Your task to perform on an android device: Open network settings Image 0: 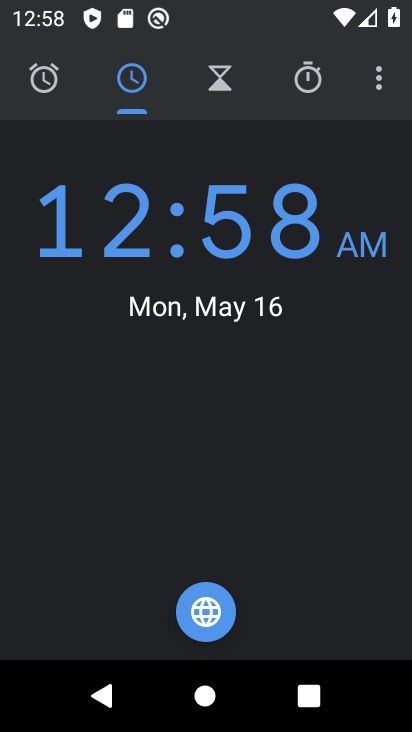
Step 0: press home button
Your task to perform on an android device: Open network settings Image 1: 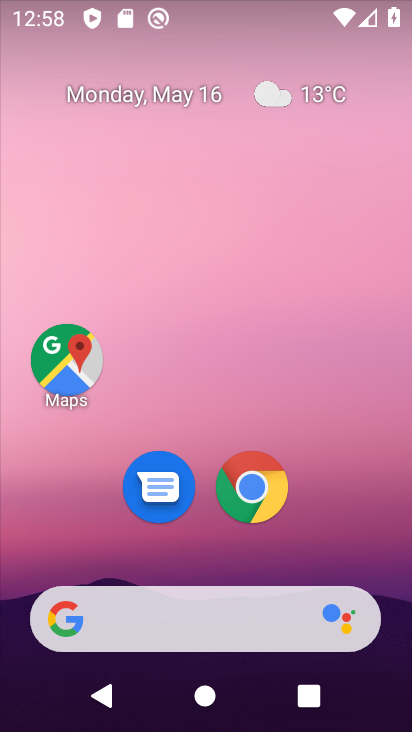
Step 1: drag from (396, 630) to (394, 154)
Your task to perform on an android device: Open network settings Image 2: 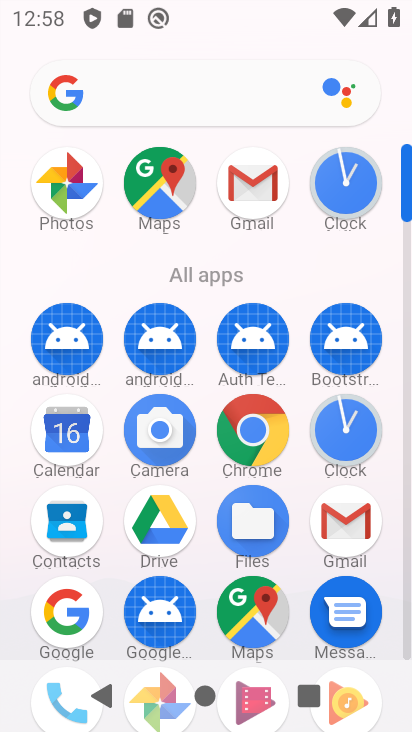
Step 2: drag from (406, 151) to (404, 58)
Your task to perform on an android device: Open network settings Image 3: 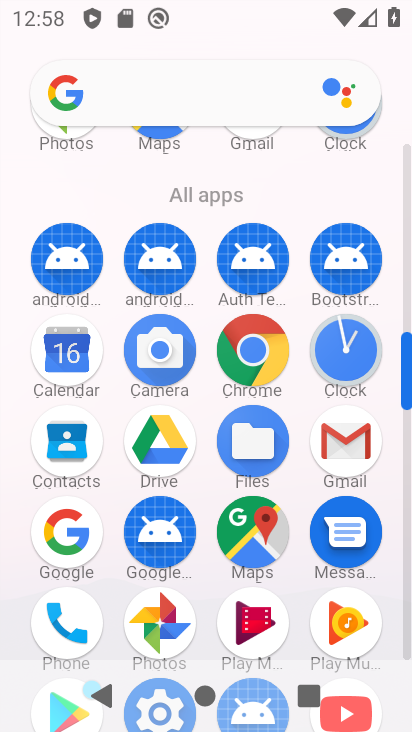
Step 3: drag from (405, 335) to (407, 221)
Your task to perform on an android device: Open network settings Image 4: 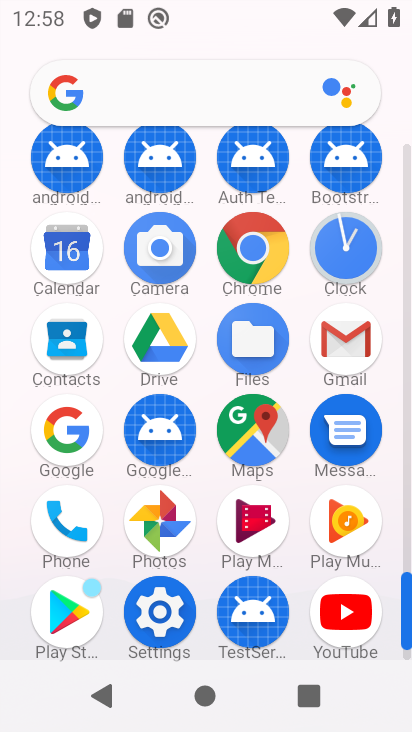
Step 4: click (163, 618)
Your task to perform on an android device: Open network settings Image 5: 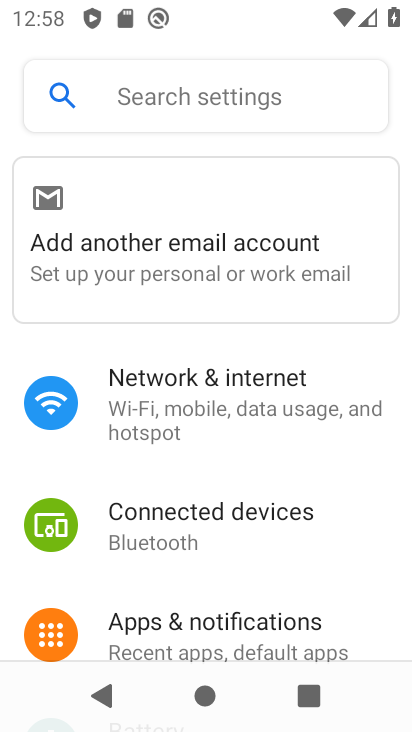
Step 5: click (154, 396)
Your task to perform on an android device: Open network settings Image 6: 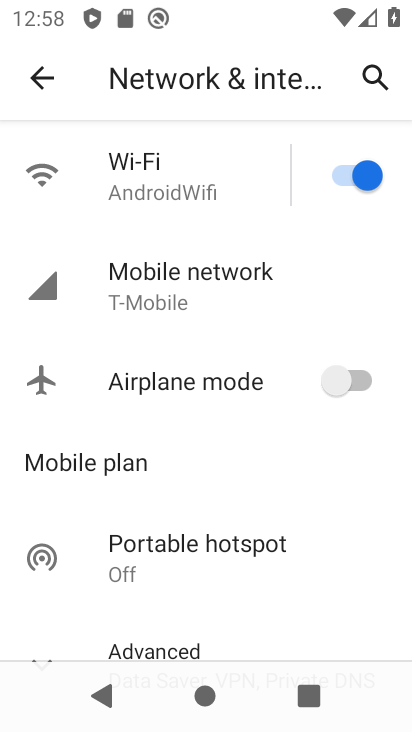
Step 6: click (149, 286)
Your task to perform on an android device: Open network settings Image 7: 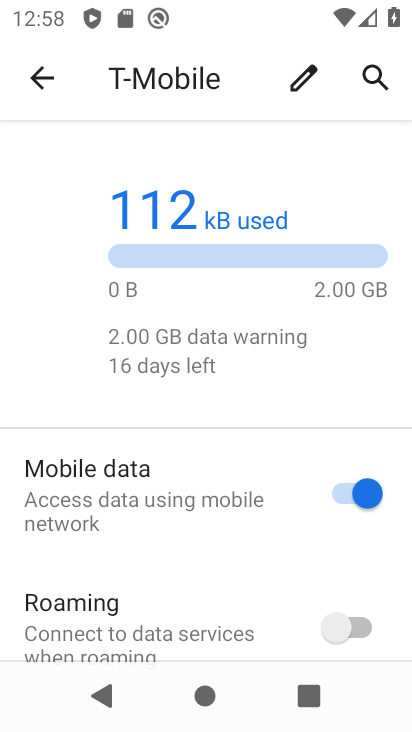
Step 7: drag from (198, 563) to (181, 301)
Your task to perform on an android device: Open network settings Image 8: 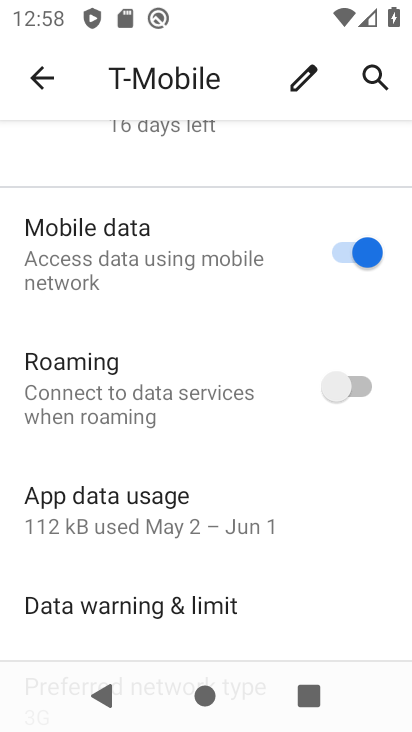
Step 8: click (206, 311)
Your task to perform on an android device: Open network settings Image 9: 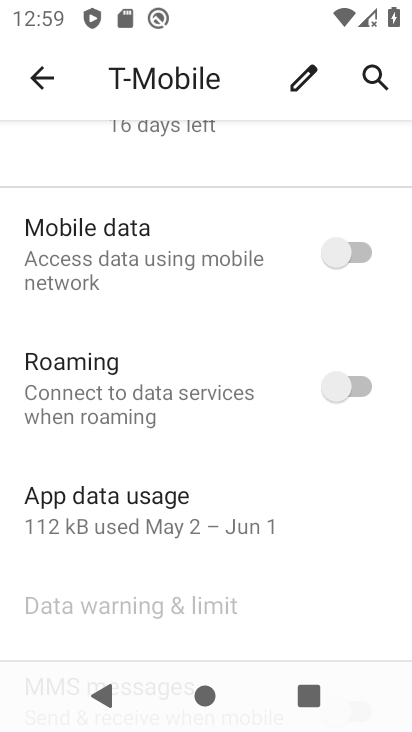
Step 9: task complete